Your task to perform on an android device: open a bookmark in the chrome app Image 0: 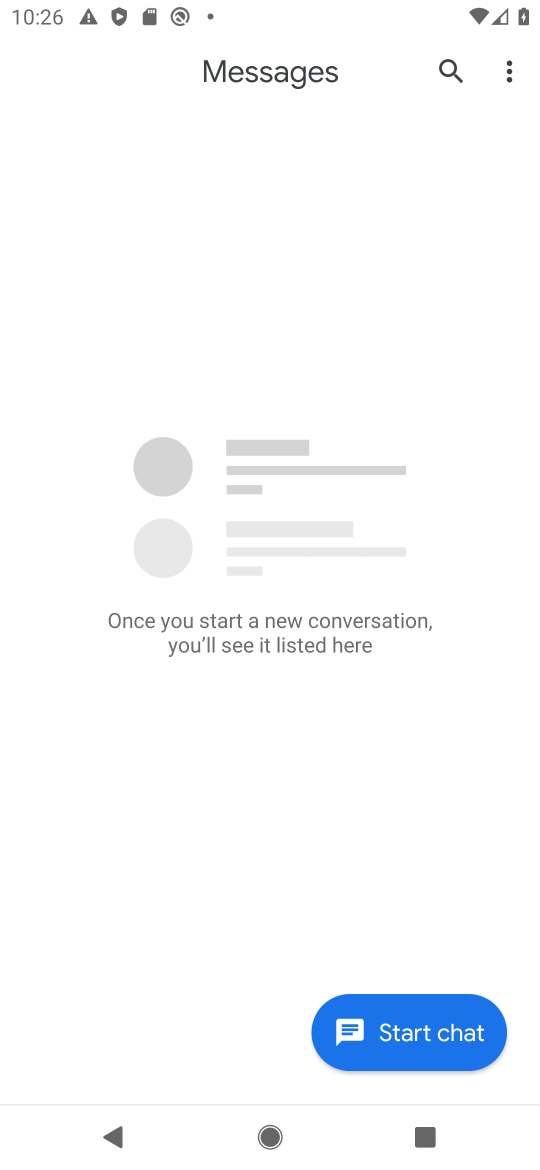
Step 0: press home button
Your task to perform on an android device: open a bookmark in the chrome app Image 1: 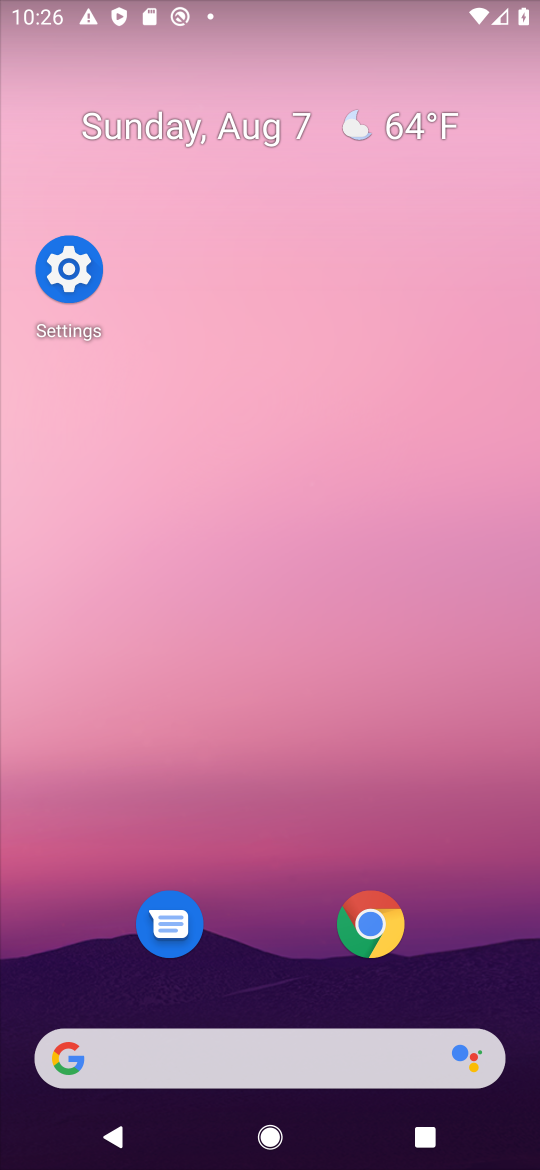
Step 1: click (359, 937)
Your task to perform on an android device: open a bookmark in the chrome app Image 2: 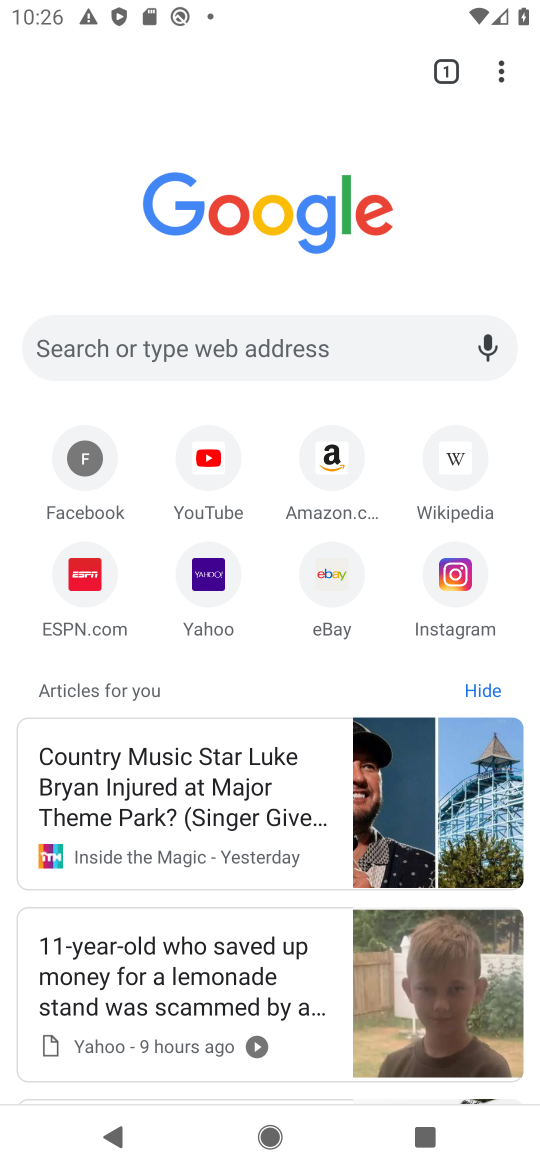
Step 2: click (480, 60)
Your task to perform on an android device: open a bookmark in the chrome app Image 3: 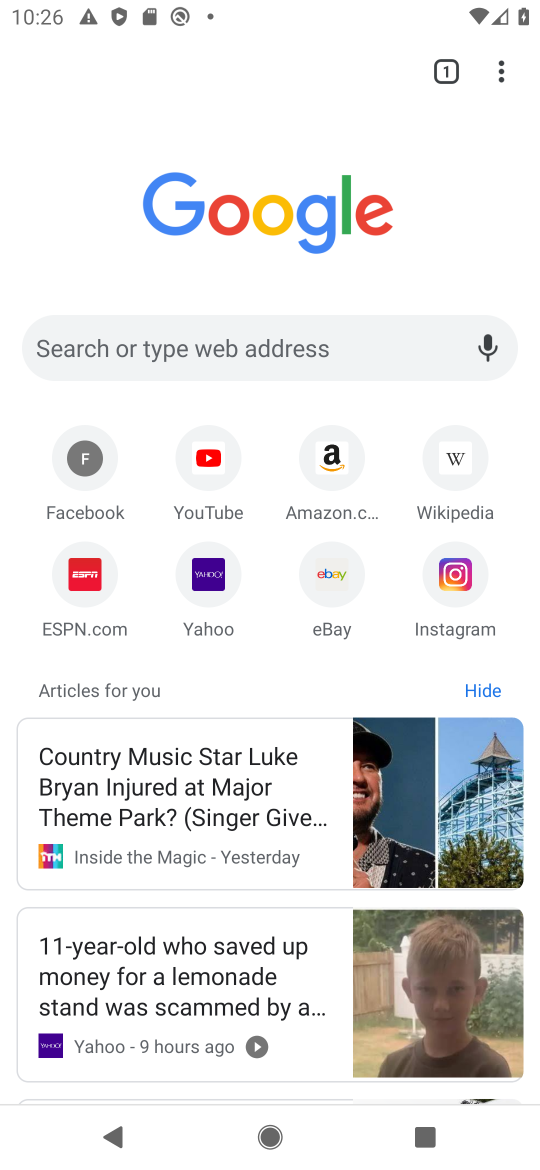
Step 3: click (498, 63)
Your task to perform on an android device: open a bookmark in the chrome app Image 4: 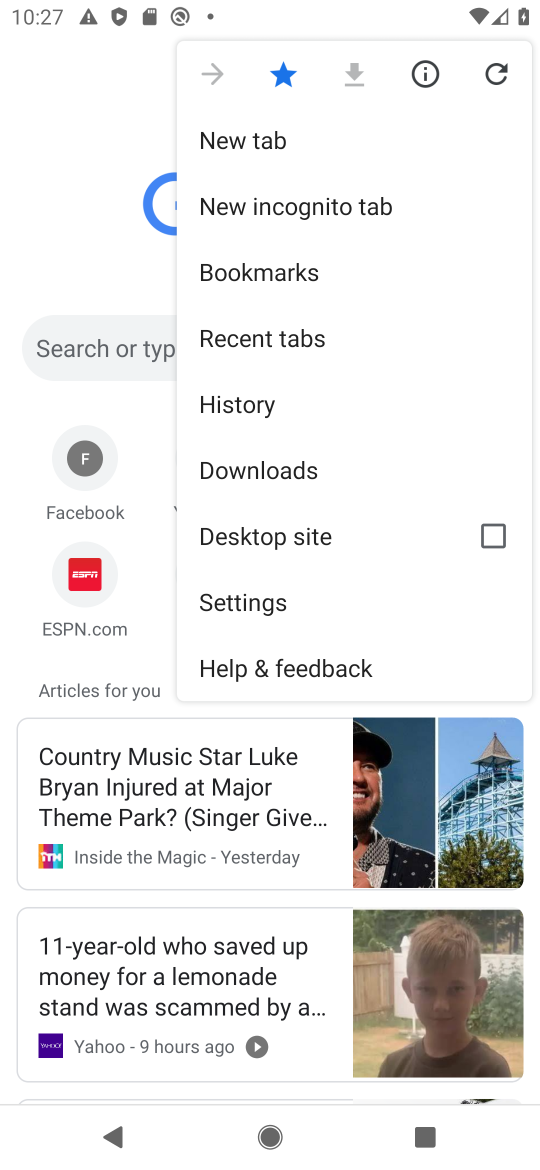
Step 4: click (266, 267)
Your task to perform on an android device: open a bookmark in the chrome app Image 5: 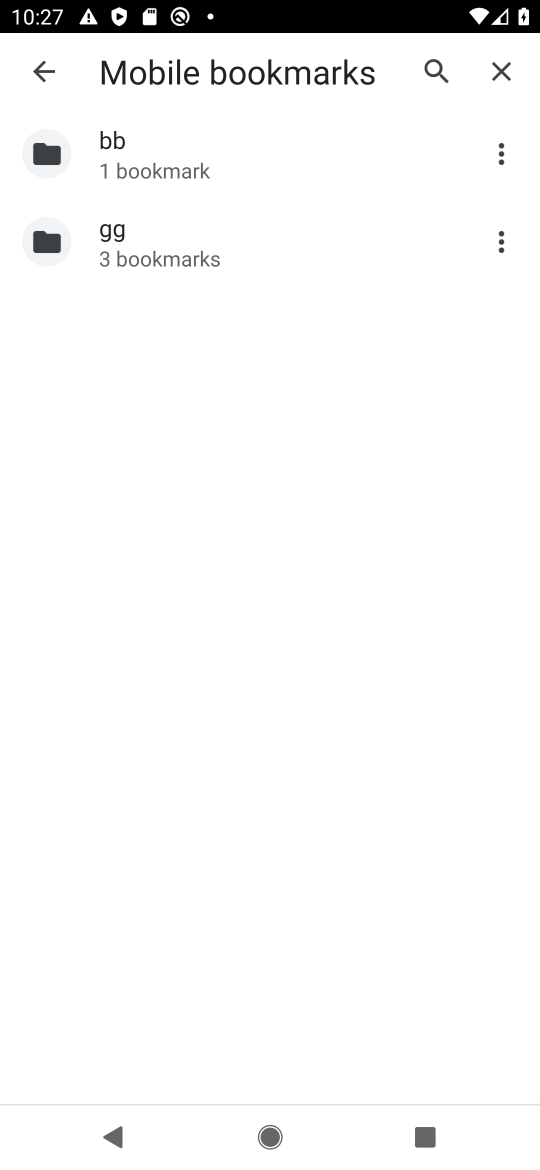
Step 5: task complete